Your task to perform on an android device: visit the assistant section in the google photos Image 0: 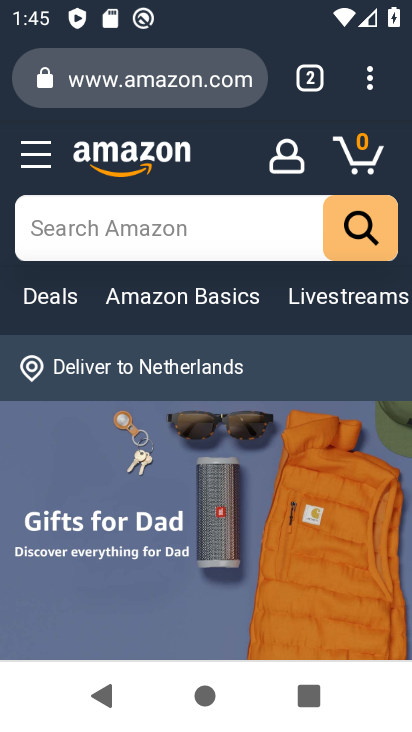
Step 0: press home button
Your task to perform on an android device: visit the assistant section in the google photos Image 1: 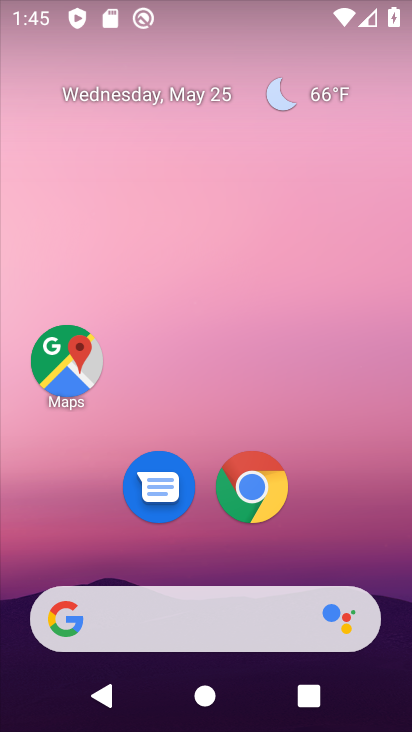
Step 1: drag from (211, 563) to (179, 5)
Your task to perform on an android device: visit the assistant section in the google photos Image 2: 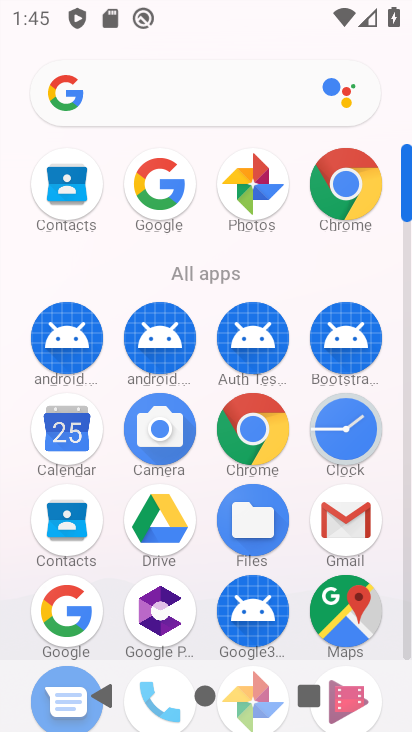
Step 2: drag from (263, 620) to (262, 280)
Your task to perform on an android device: visit the assistant section in the google photos Image 3: 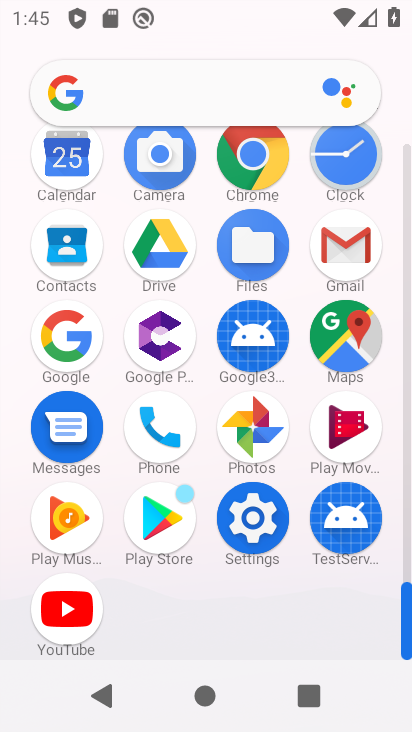
Step 3: click (236, 441)
Your task to perform on an android device: visit the assistant section in the google photos Image 4: 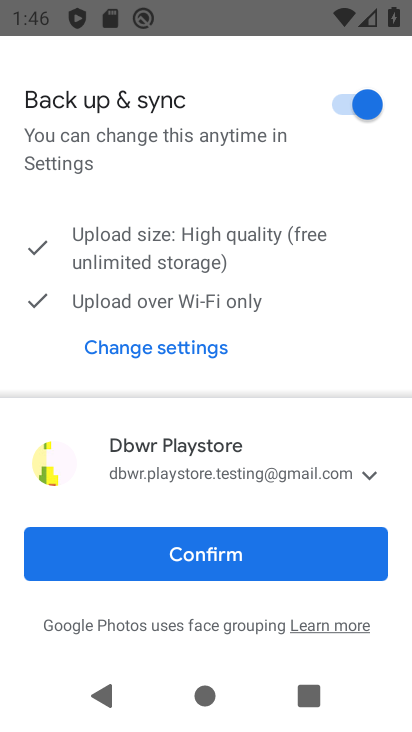
Step 4: click (229, 550)
Your task to perform on an android device: visit the assistant section in the google photos Image 5: 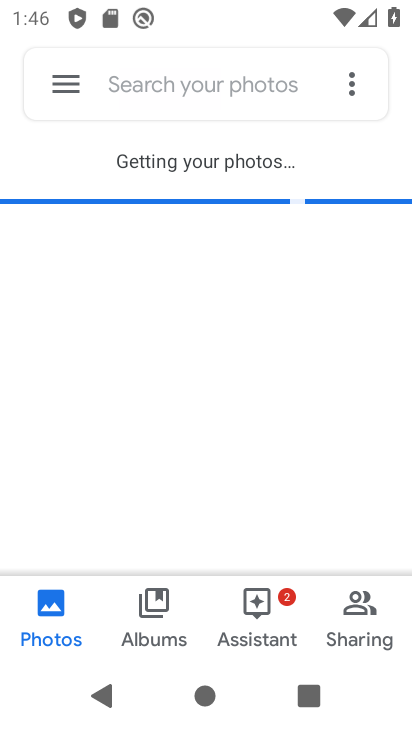
Step 5: click (260, 596)
Your task to perform on an android device: visit the assistant section in the google photos Image 6: 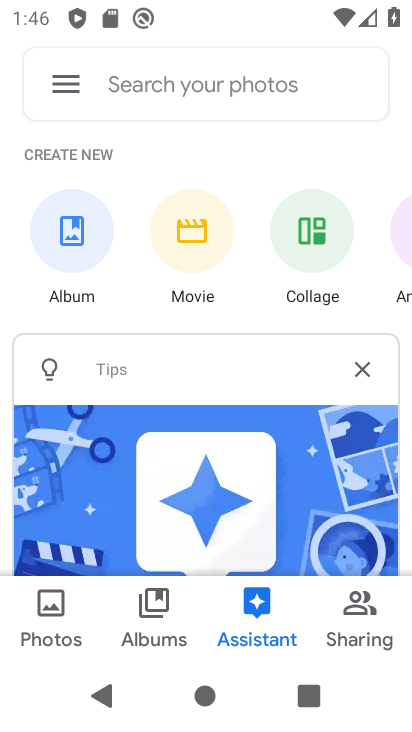
Step 6: task complete